Your task to perform on an android device: Search for razer nari on ebay.com, select the first entry, and add it to the cart. Image 0: 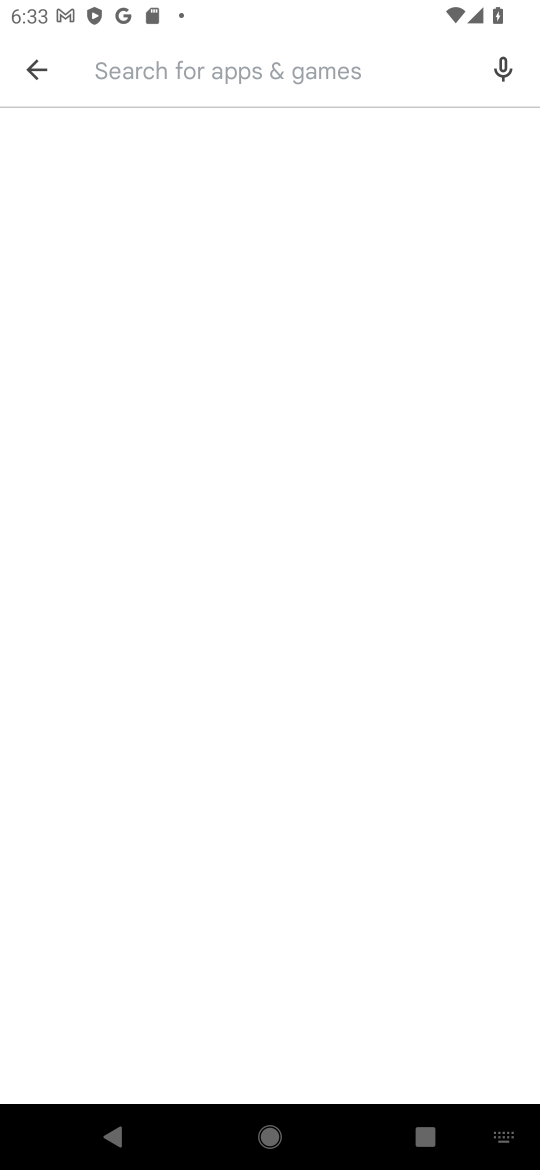
Step 0: press home button
Your task to perform on an android device: Search for razer nari on ebay.com, select the first entry, and add it to the cart. Image 1: 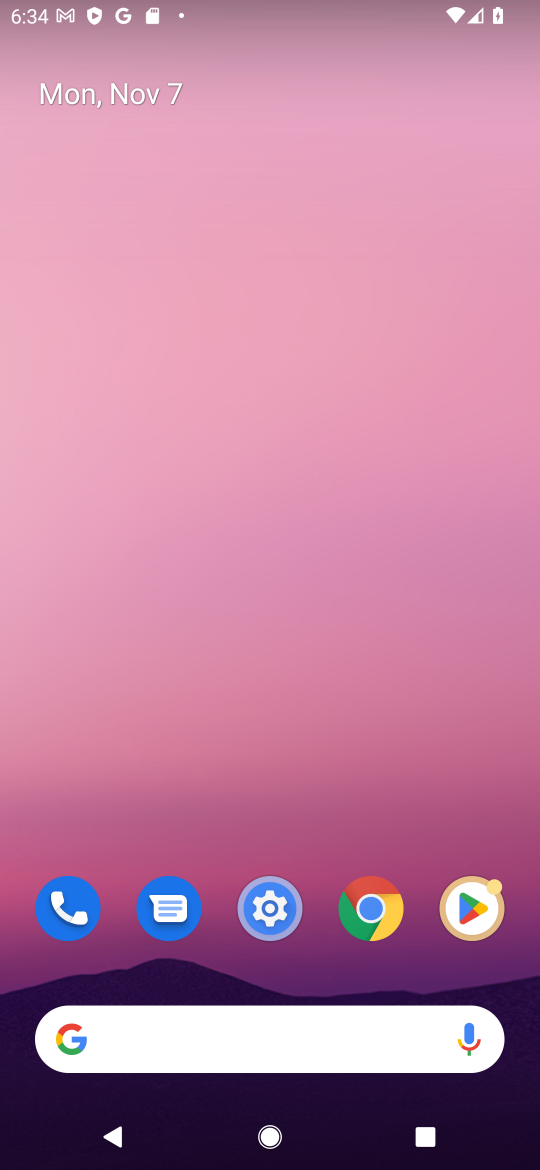
Step 1: click (226, 1031)
Your task to perform on an android device: Search for razer nari on ebay.com, select the first entry, and add it to the cart. Image 2: 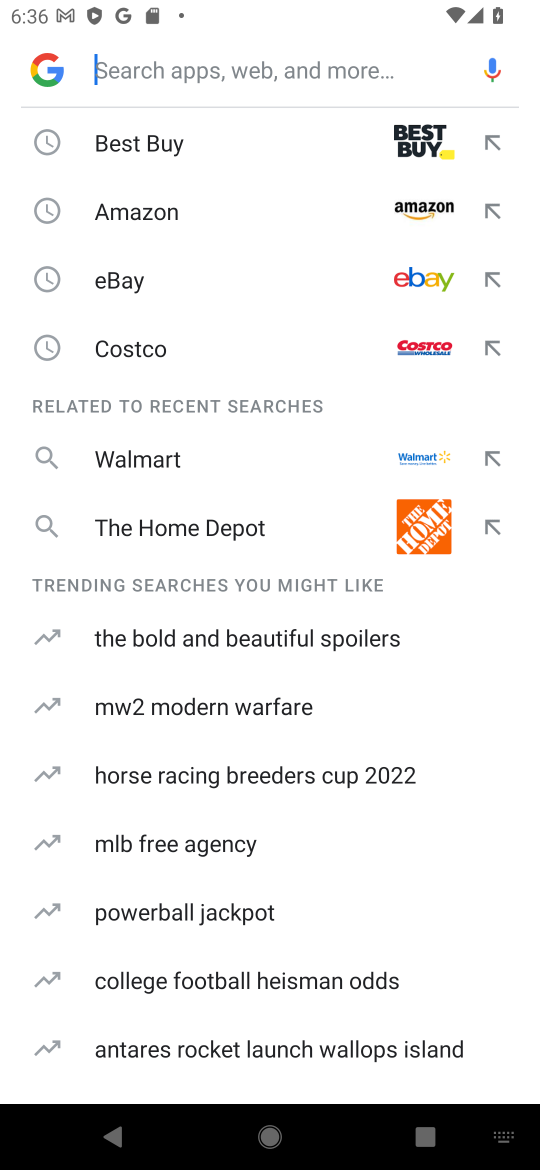
Step 2: click (242, 271)
Your task to perform on an android device: Search for razer nari on ebay.com, select the first entry, and add it to the cart. Image 3: 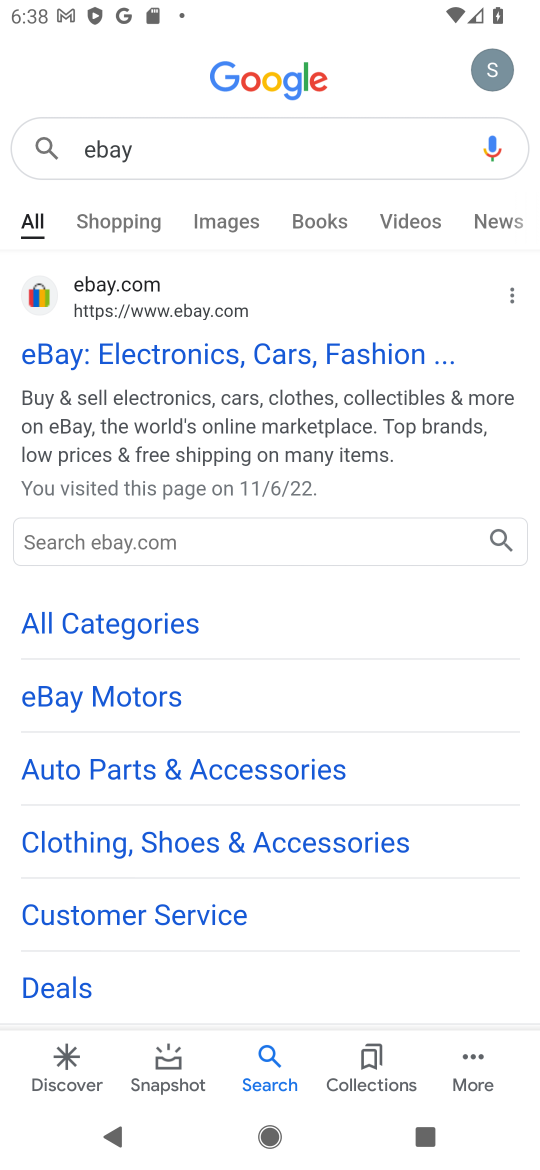
Step 3: click (256, 334)
Your task to perform on an android device: Search for razer nari on ebay.com, select the first entry, and add it to the cart. Image 4: 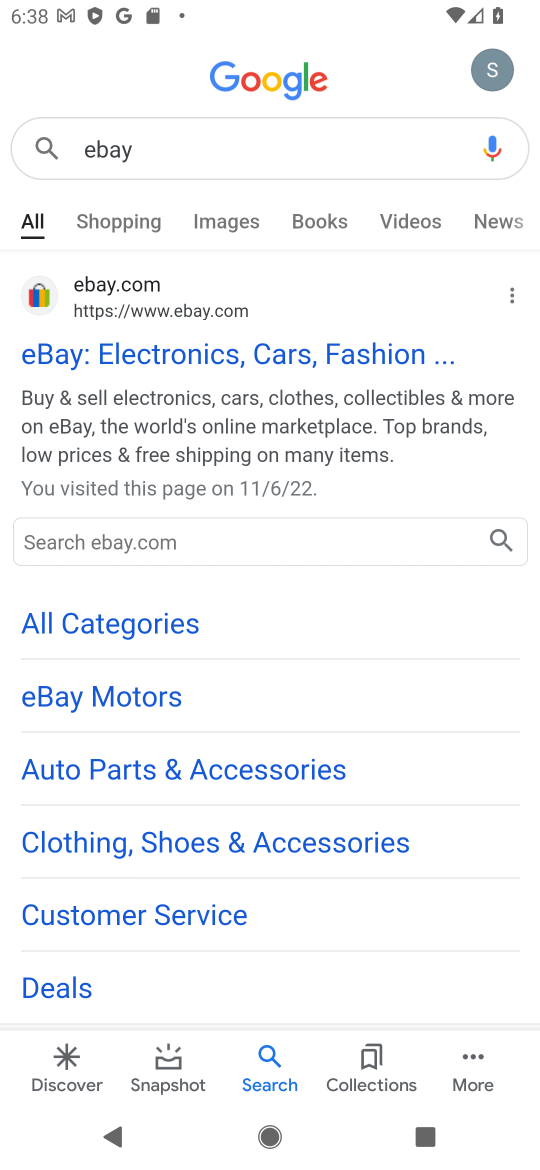
Step 4: task complete